Your task to perform on an android device: Is it going to rain this weekend? Image 0: 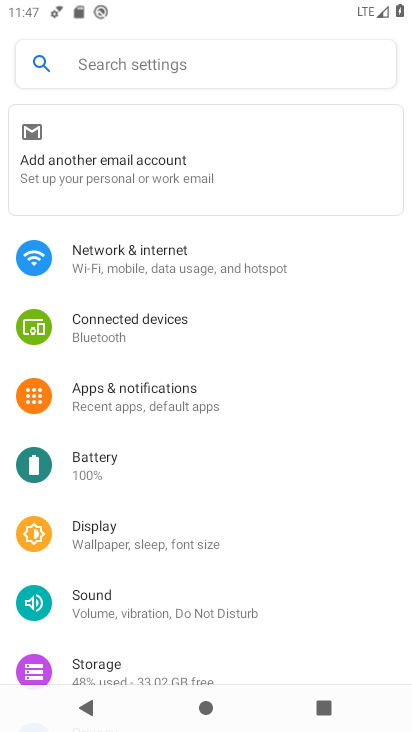
Step 0: press home button
Your task to perform on an android device: Is it going to rain this weekend? Image 1: 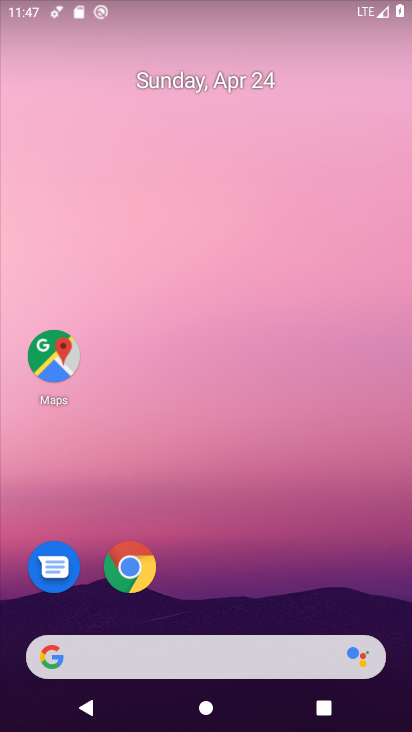
Step 1: drag from (65, 583) to (60, 162)
Your task to perform on an android device: Is it going to rain this weekend? Image 2: 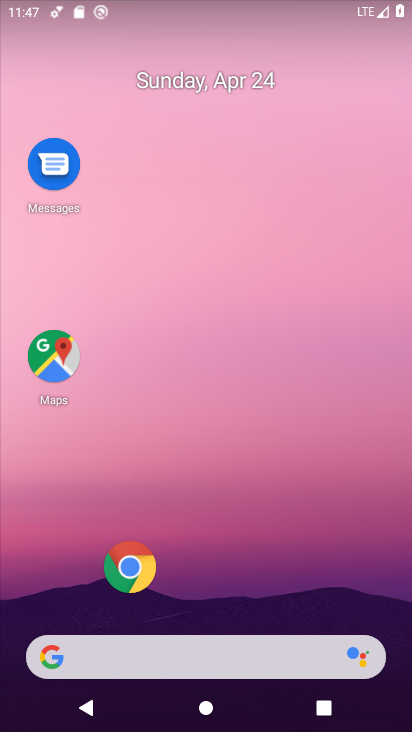
Step 2: drag from (274, 522) to (147, 126)
Your task to perform on an android device: Is it going to rain this weekend? Image 3: 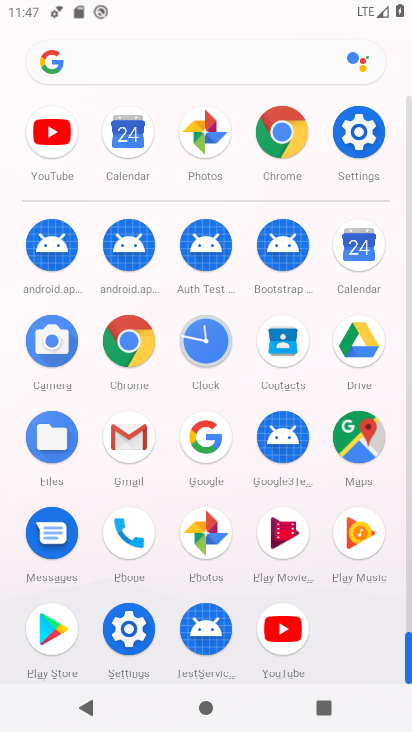
Step 3: click (204, 446)
Your task to perform on an android device: Is it going to rain this weekend? Image 4: 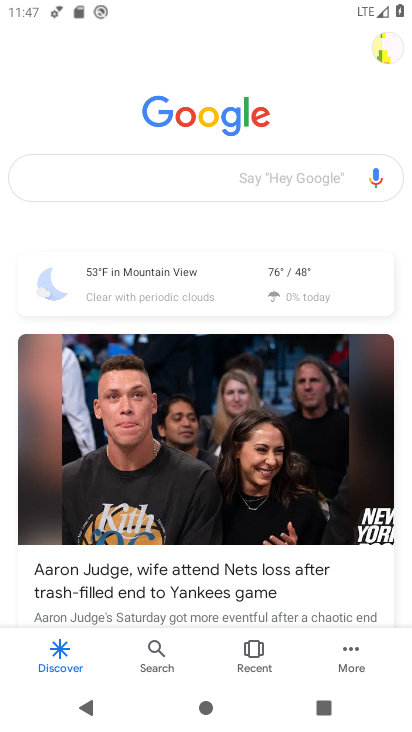
Step 4: click (119, 190)
Your task to perform on an android device: Is it going to rain this weekend? Image 5: 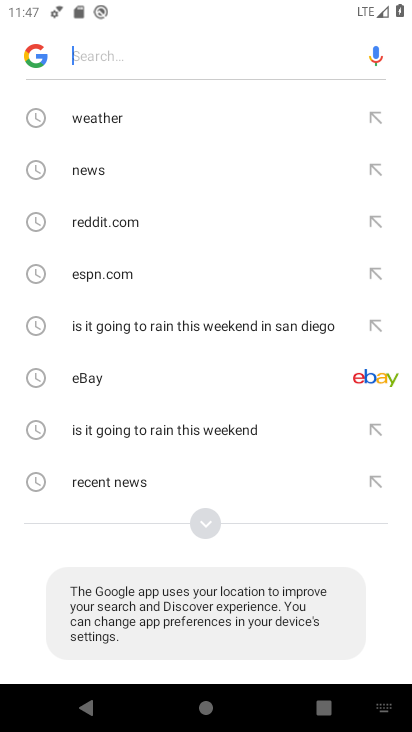
Step 5: click (75, 109)
Your task to perform on an android device: Is it going to rain this weekend? Image 6: 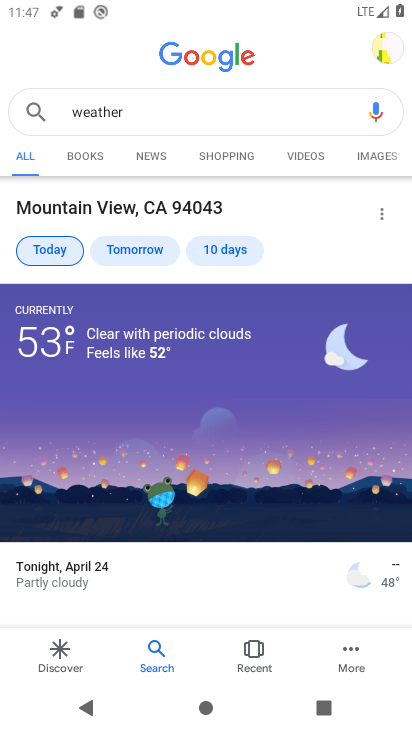
Step 6: click (206, 241)
Your task to perform on an android device: Is it going to rain this weekend? Image 7: 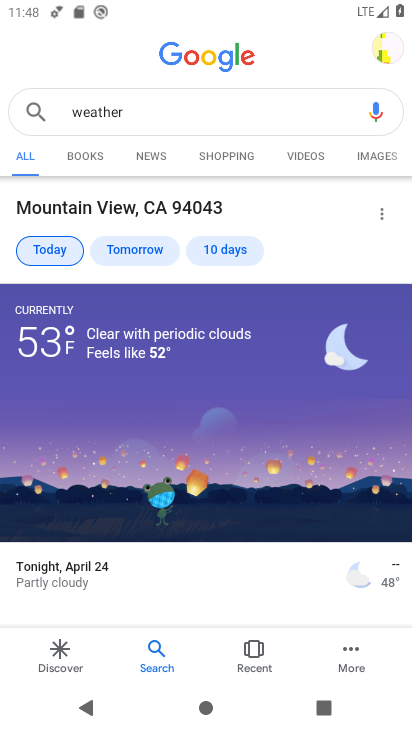
Step 7: task complete